Your task to perform on an android device: find photos in the google photos app Image 0: 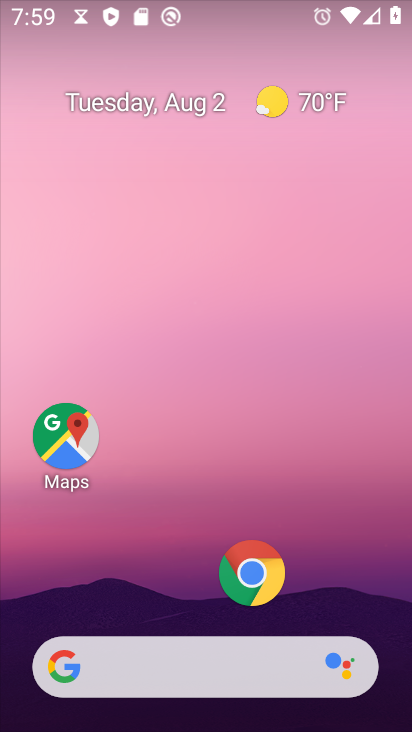
Step 0: press home button
Your task to perform on an android device: find photos in the google photos app Image 1: 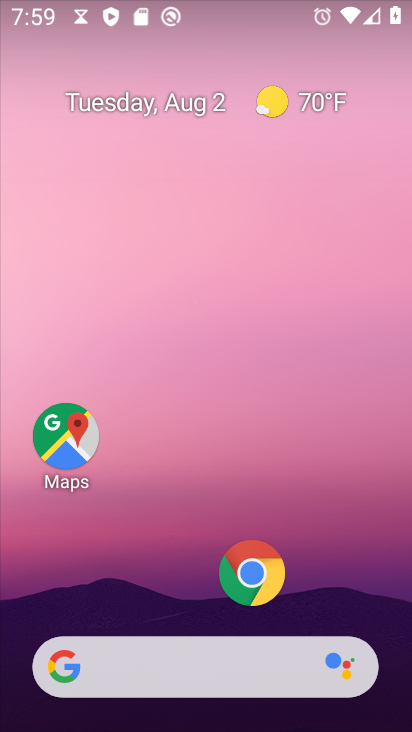
Step 1: drag from (199, 619) to (214, 48)
Your task to perform on an android device: find photos in the google photos app Image 2: 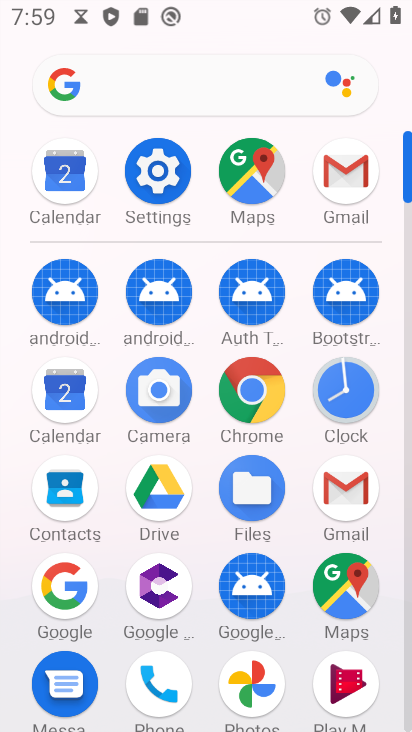
Step 2: click (249, 675)
Your task to perform on an android device: find photos in the google photos app Image 3: 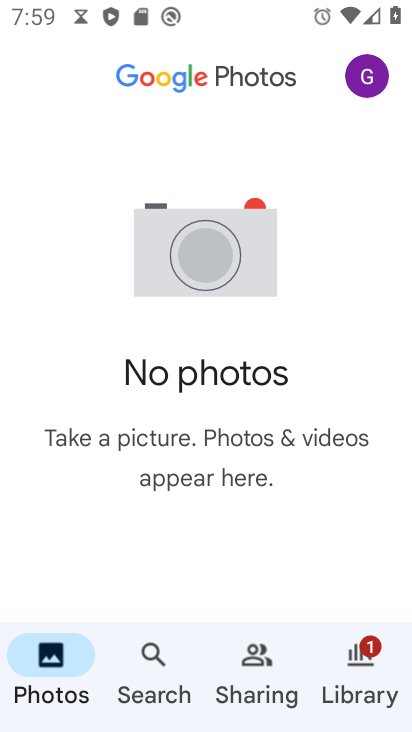
Step 3: click (62, 650)
Your task to perform on an android device: find photos in the google photos app Image 4: 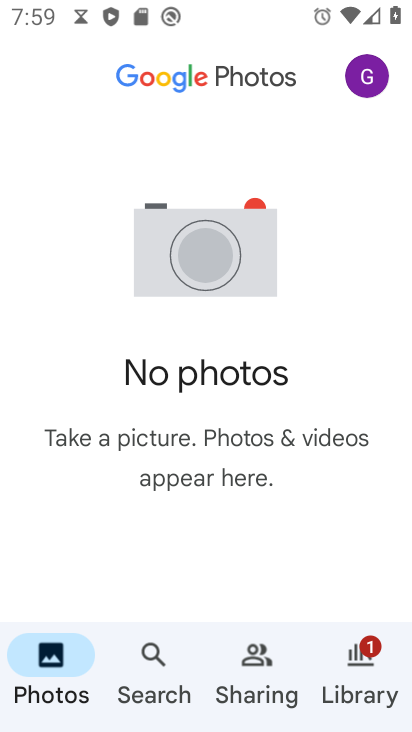
Step 4: task complete